Your task to perform on an android device: choose inbox layout in the gmail app Image 0: 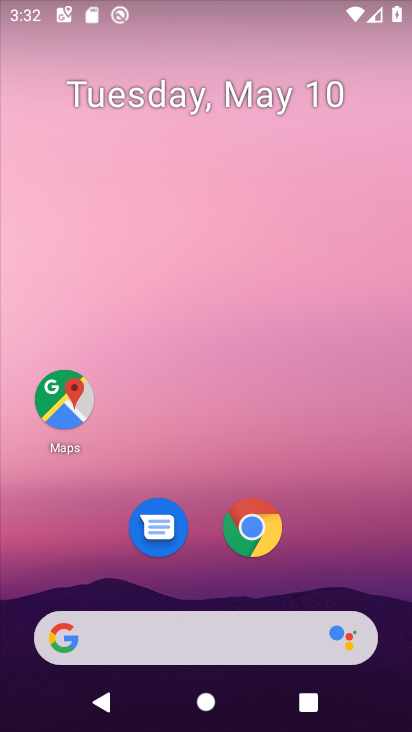
Step 0: drag from (397, 651) to (318, 271)
Your task to perform on an android device: choose inbox layout in the gmail app Image 1: 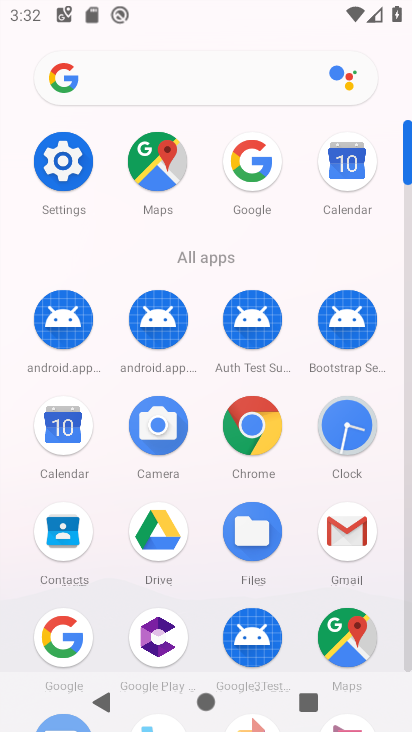
Step 1: click (348, 541)
Your task to perform on an android device: choose inbox layout in the gmail app Image 2: 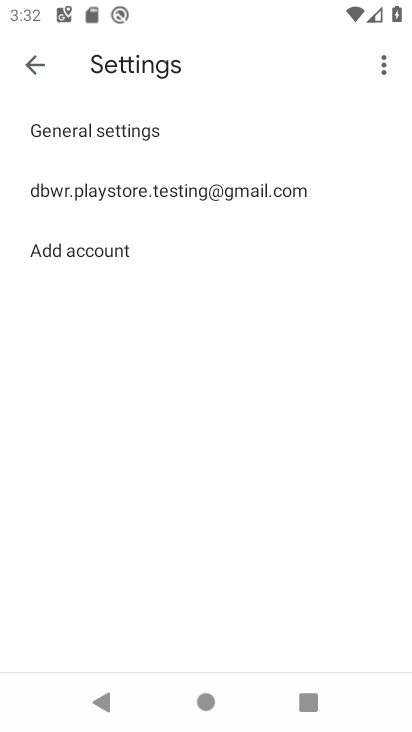
Step 2: click (66, 191)
Your task to perform on an android device: choose inbox layout in the gmail app Image 3: 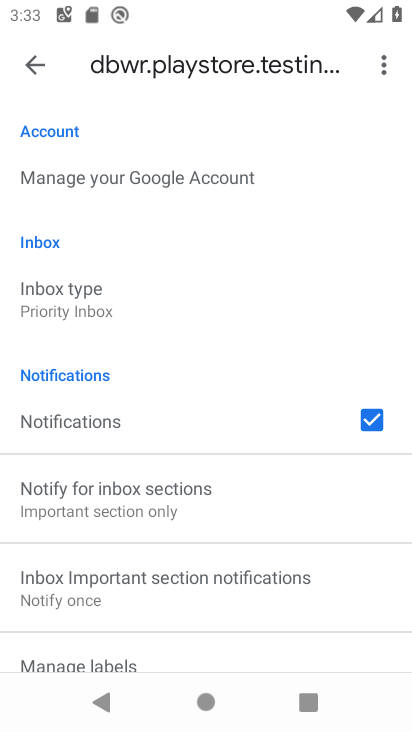
Step 3: click (44, 293)
Your task to perform on an android device: choose inbox layout in the gmail app Image 4: 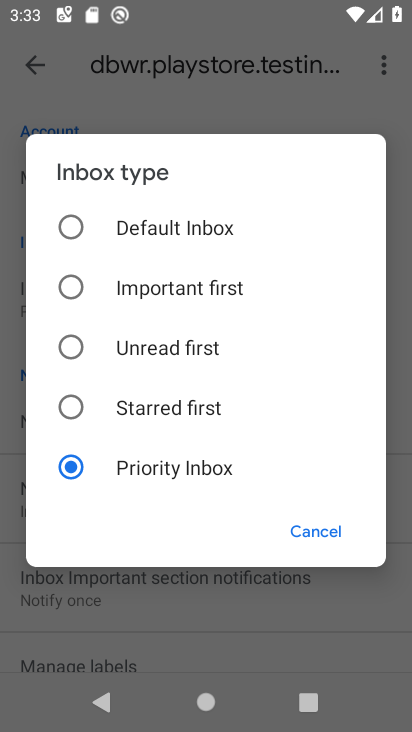
Step 4: click (71, 218)
Your task to perform on an android device: choose inbox layout in the gmail app Image 5: 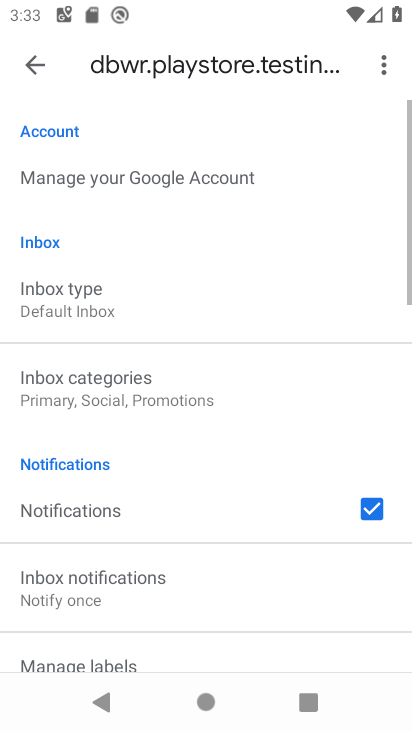
Step 5: task complete